Your task to perform on an android device: Open the web browser Image 0: 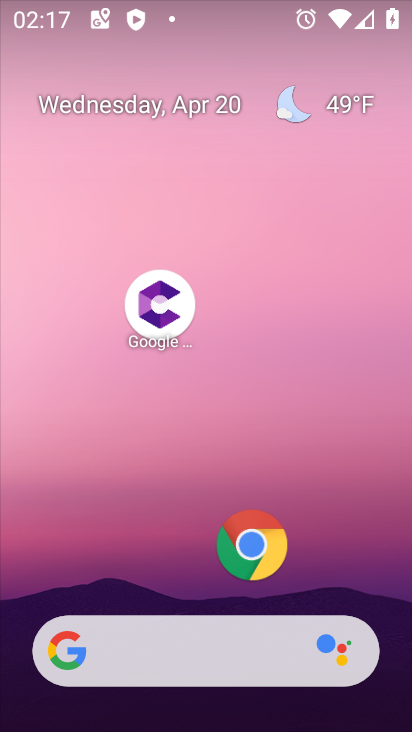
Step 0: click (252, 545)
Your task to perform on an android device: Open the web browser Image 1: 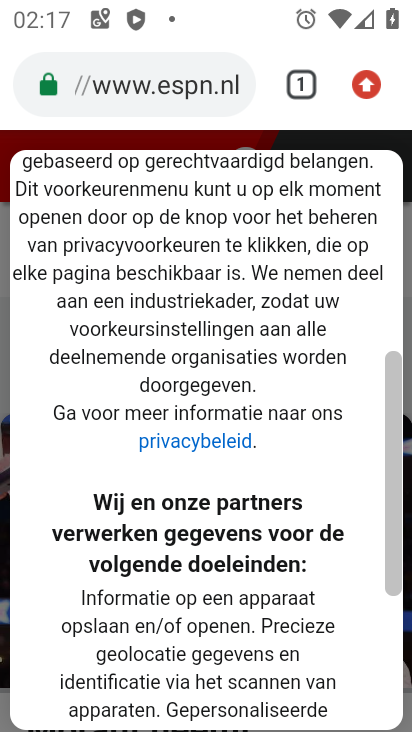
Step 1: task complete